Your task to perform on an android device: open the mobile data screen to see how much data has been used Image 0: 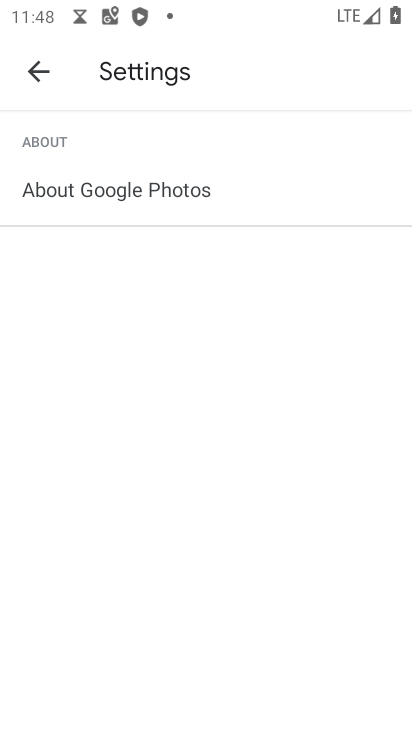
Step 0: press home button
Your task to perform on an android device: open the mobile data screen to see how much data has been used Image 1: 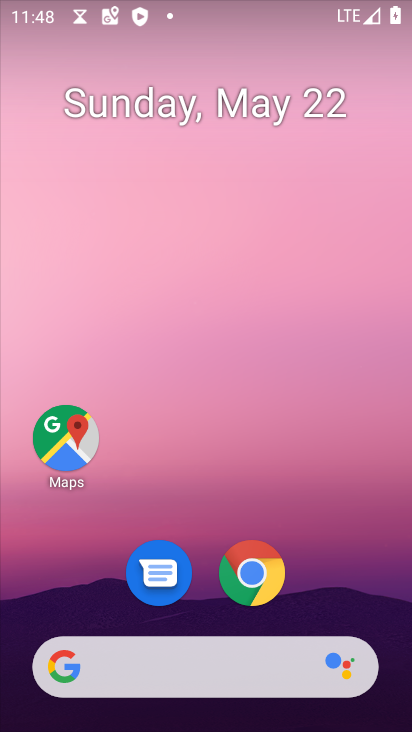
Step 1: drag from (186, 668) to (286, 131)
Your task to perform on an android device: open the mobile data screen to see how much data has been used Image 2: 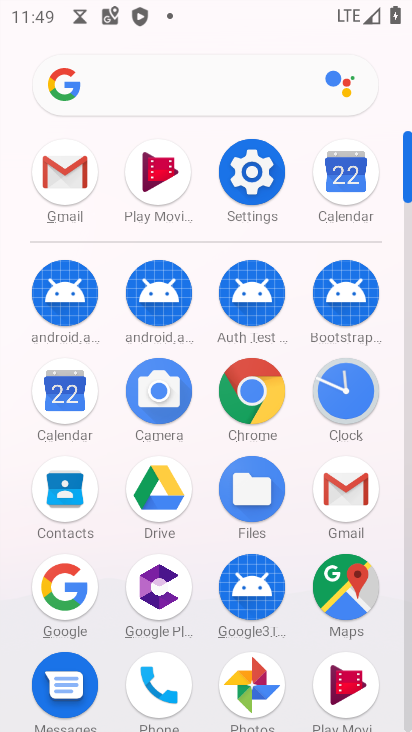
Step 2: click (257, 190)
Your task to perform on an android device: open the mobile data screen to see how much data has been used Image 3: 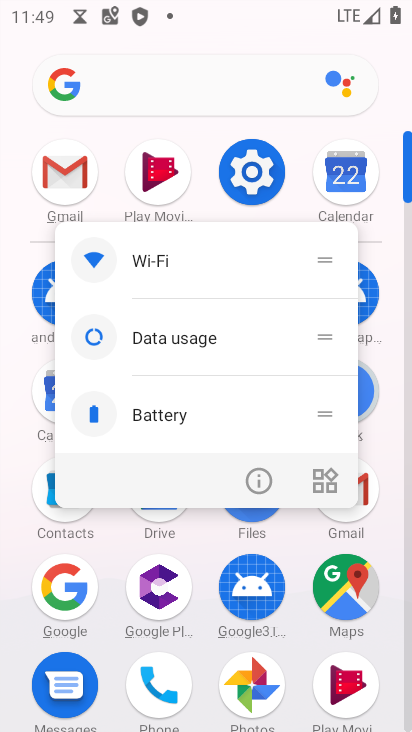
Step 3: click (257, 172)
Your task to perform on an android device: open the mobile data screen to see how much data has been used Image 4: 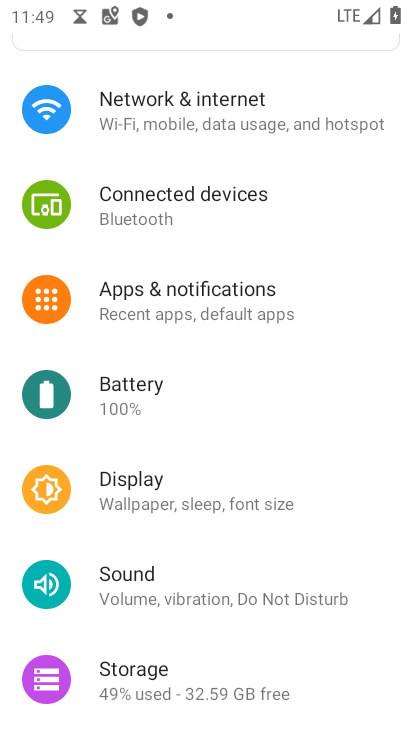
Step 4: click (174, 110)
Your task to perform on an android device: open the mobile data screen to see how much data has been used Image 5: 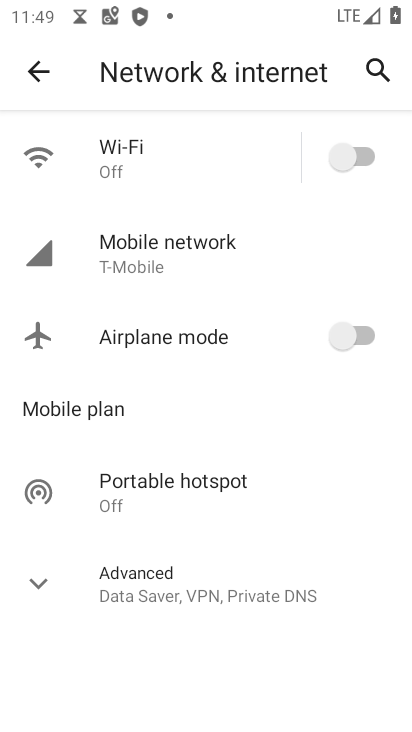
Step 5: click (182, 238)
Your task to perform on an android device: open the mobile data screen to see how much data has been used Image 6: 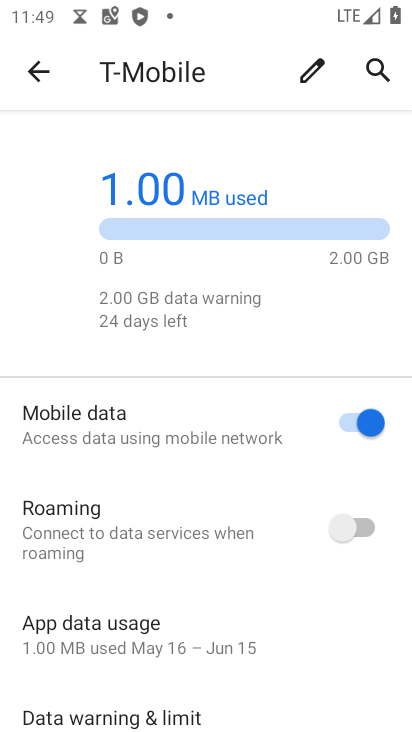
Step 6: task complete